Your task to perform on an android device: change timer sound Image 0: 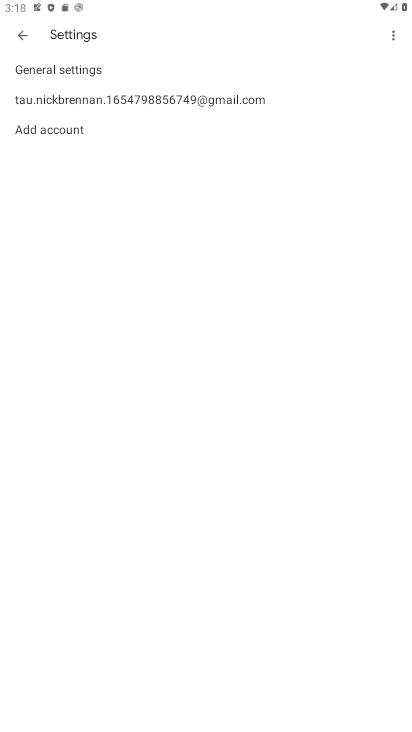
Step 0: press home button
Your task to perform on an android device: change timer sound Image 1: 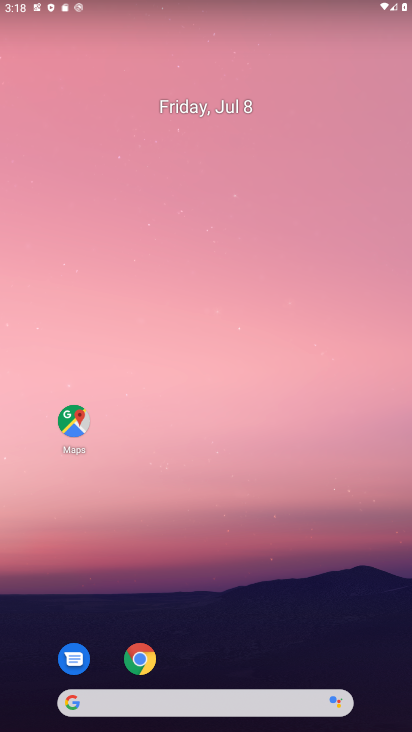
Step 1: drag from (233, 653) to (229, 278)
Your task to perform on an android device: change timer sound Image 2: 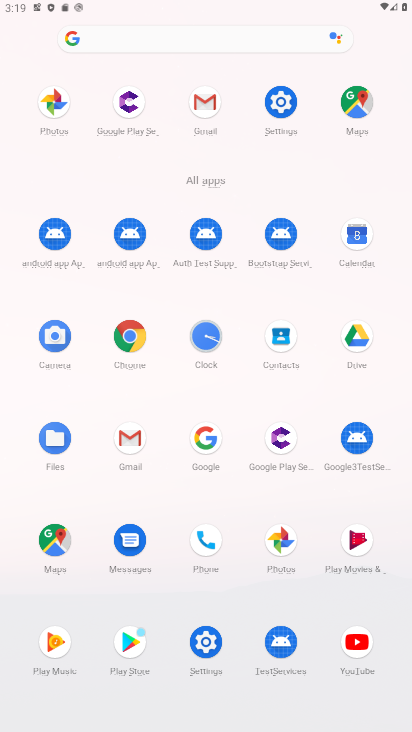
Step 2: click (188, 332)
Your task to perform on an android device: change timer sound Image 3: 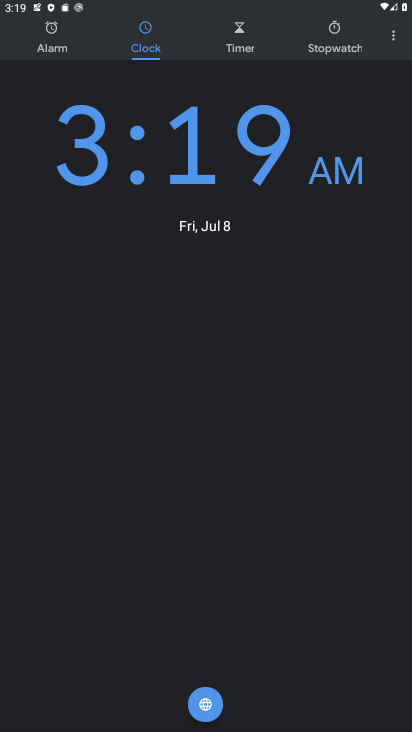
Step 3: click (390, 40)
Your task to perform on an android device: change timer sound Image 4: 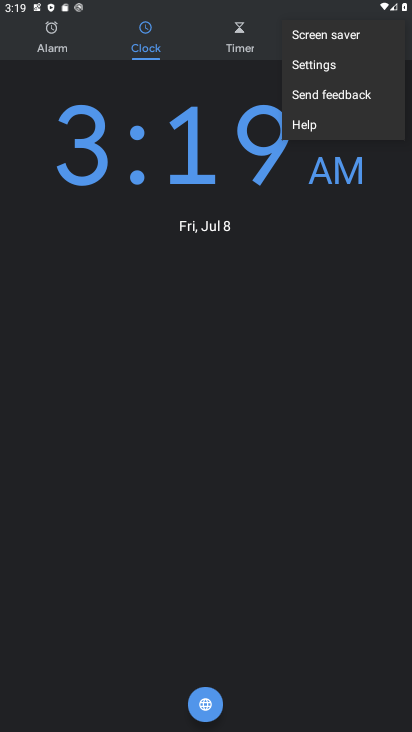
Step 4: click (342, 66)
Your task to perform on an android device: change timer sound Image 5: 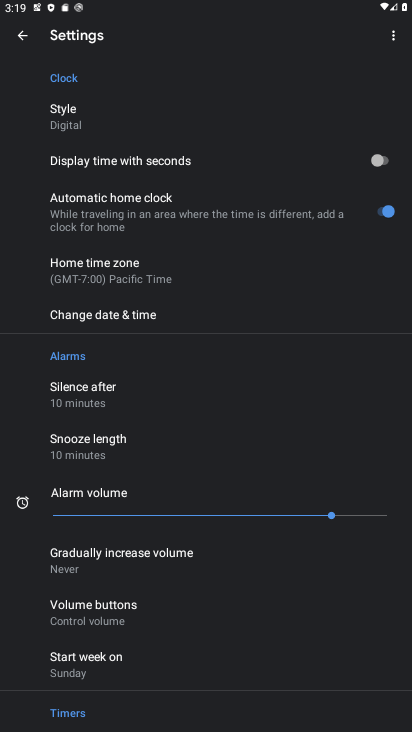
Step 5: drag from (191, 541) to (204, 283)
Your task to perform on an android device: change timer sound Image 6: 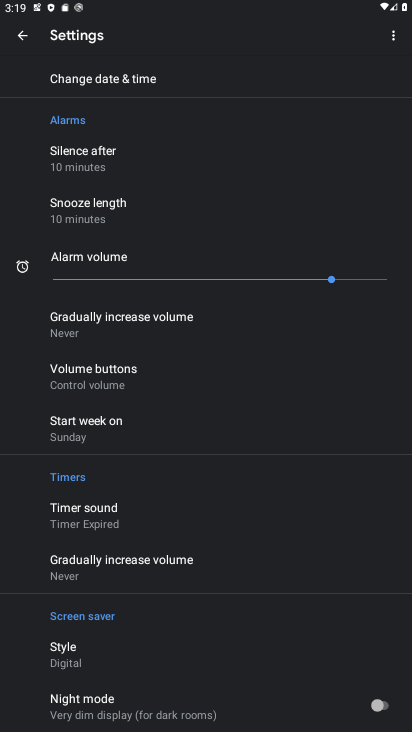
Step 6: drag from (205, 342) to (236, 538)
Your task to perform on an android device: change timer sound Image 7: 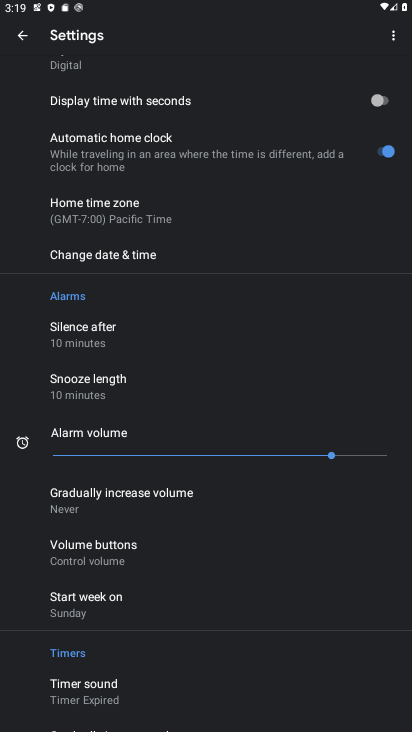
Step 7: drag from (236, 293) to (248, 454)
Your task to perform on an android device: change timer sound Image 8: 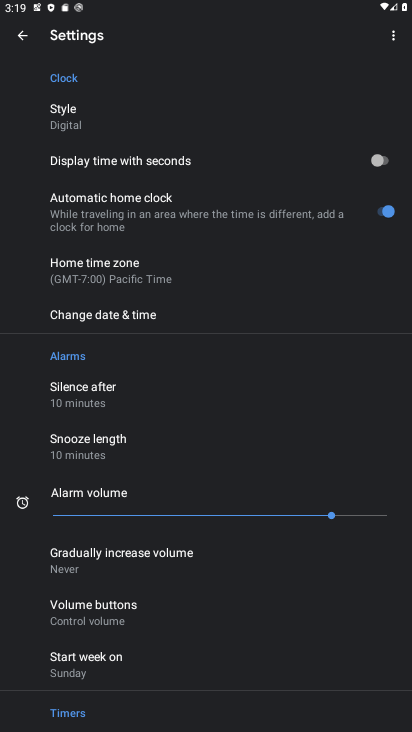
Step 8: drag from (229, 288) to (239, 487)
Your task to perform on an android device: change timer sound Image 9: 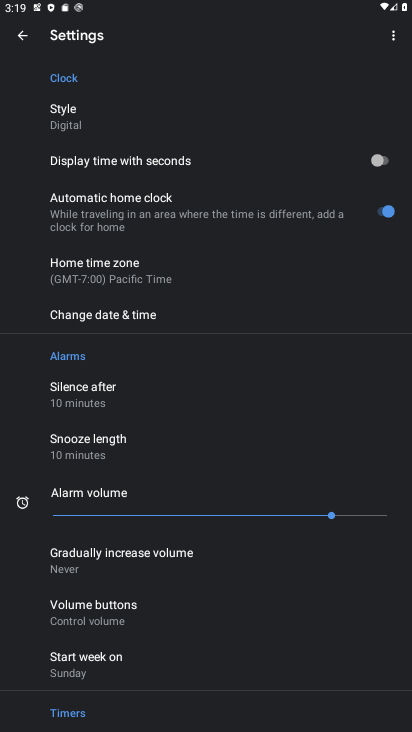
Step 9: drag from (238, 477) to (241, 280)
Your task to perform on an android device: change timer sound Image 10: 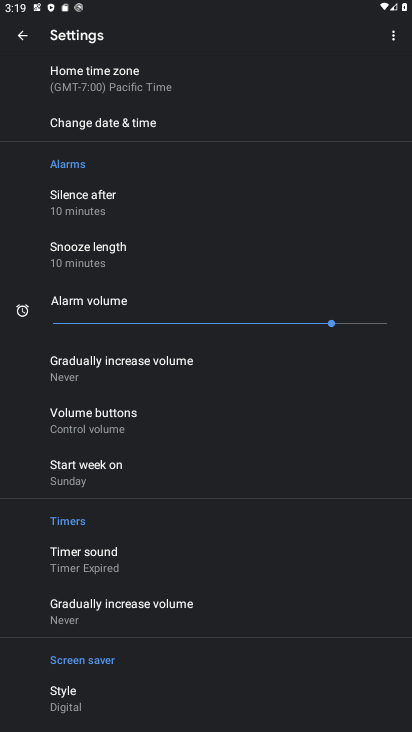
Step 10: click (151, 565)
Your task to perform on an android device: change timer sound Image 11: 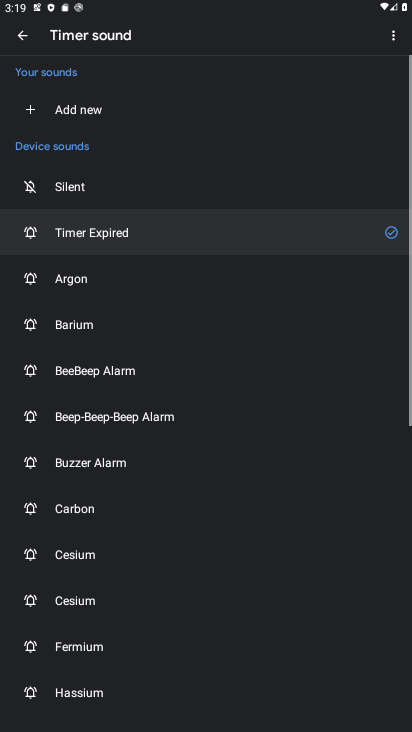
Step 11: click (147, 508)
Your task to perform on an android device: change timer sound Image 12: 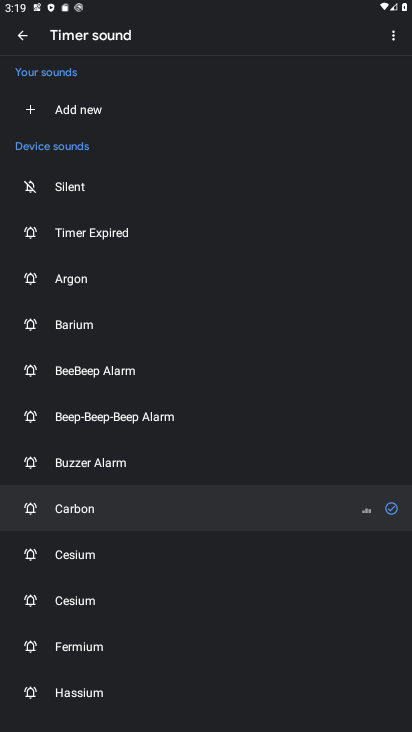
Step 12: task complete